Your task to perform on an android device: turn off smart reply in the gmail app Image 0: 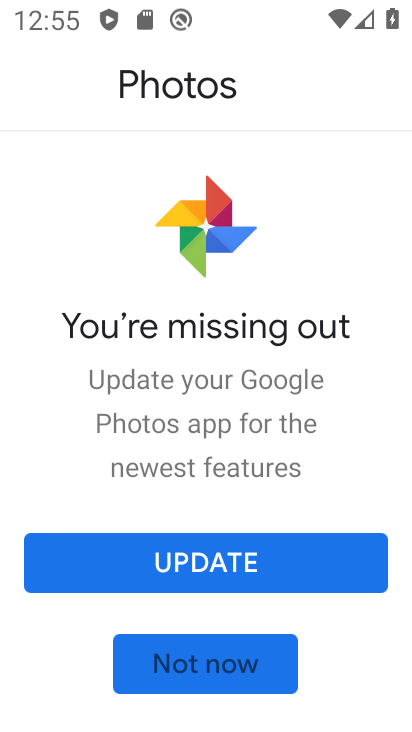
Step 0: press home button
Your task to perform on an android device: turn off smart reply in the gmail app Image 1: 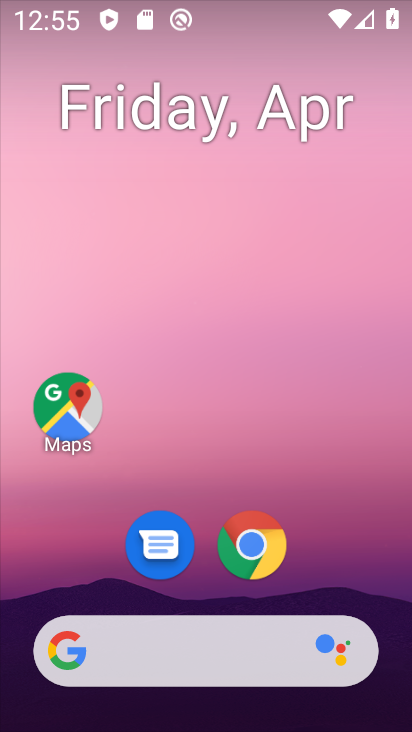
Step 1: drag from (329, 486) to (333, 39)
Your task to perform on an android device: turn off smart reply in the gmail app Image 2: 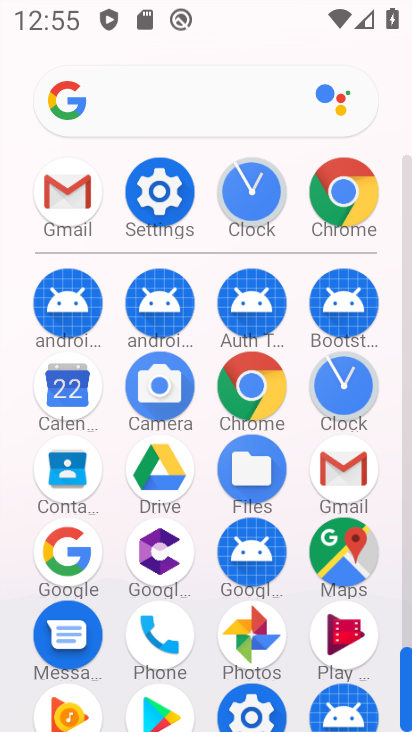
Step 2: click (350, 458)
Your task to perform on an android device: turn off smart reply in the gmail app Image 3: 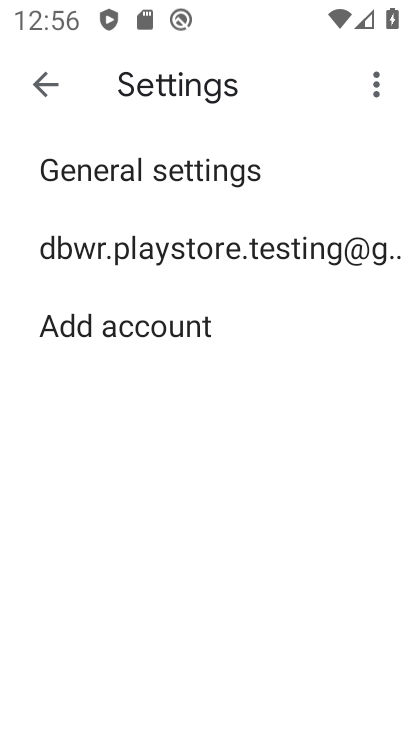
Step 3: click (228, 252)
Your task to perform on an android device: turn off smart reply in the gmail app Image 4: 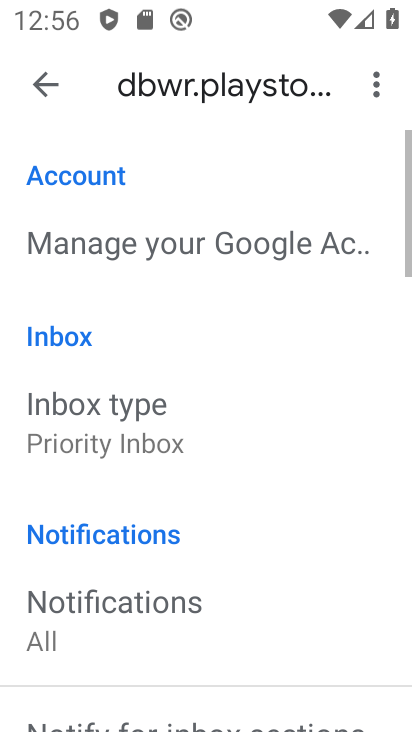
Step 4: drag from (270, 565) to (296, 98)
Your task to perform on an android device: turn off smart reply in the gmail app Image 5: 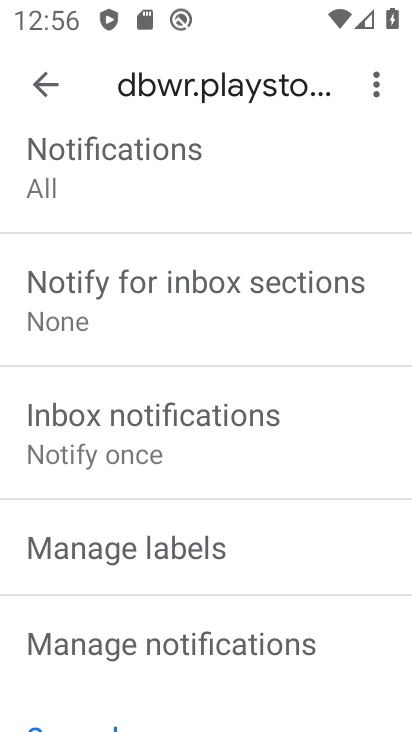
Step 5: drag from (261, 585) to (262, 154)
Your task to perform on an android device: turn off smart reply in the gmail app Image 6: 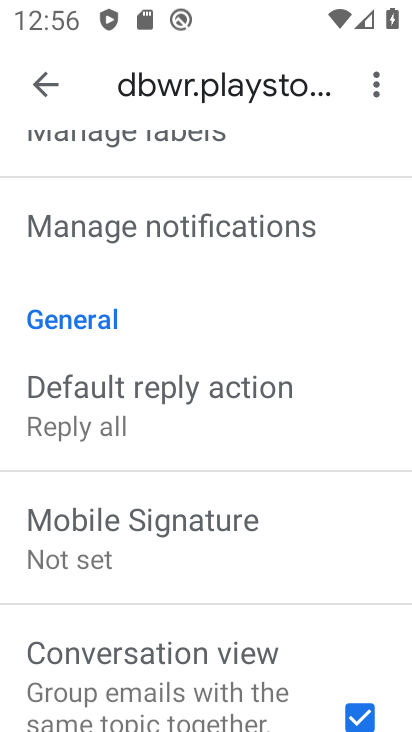
Step 6: drag from (293, 616) to (321, 164)
Your task to perform on an android device: turn off smart reply in the gmail app Image 7: 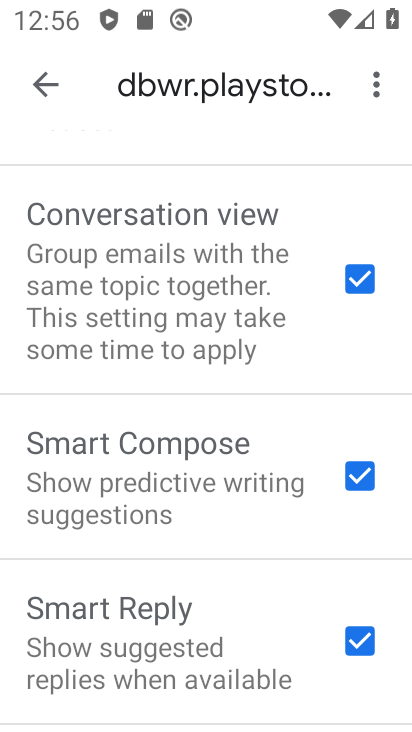
Step 7: click (362, 636)
Your task to perform on an android device: turn off smart reply in the gmail app Image 8: 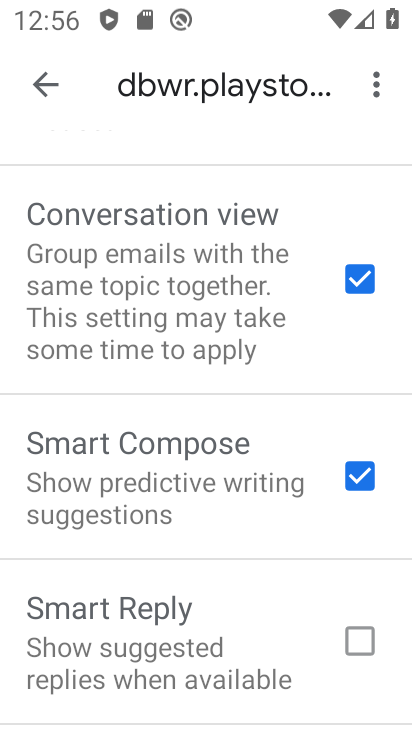
Step 8: task complete